Your task to perform on an android device: check google app version Image 0: 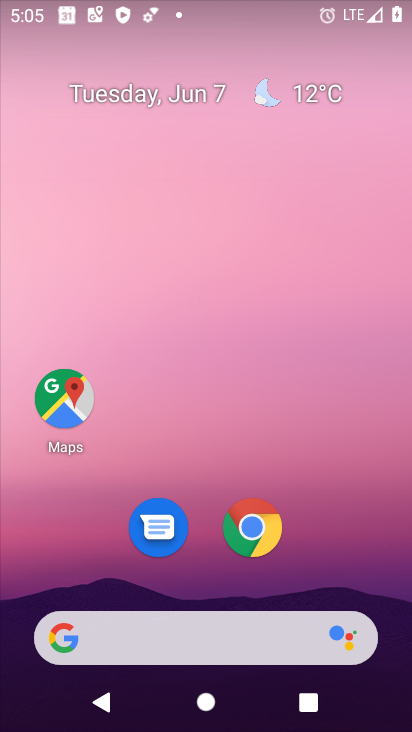
Step 0: drag from (322, 575) to (246, 28)
Your task to perform on an android device: check google app version Image 1: 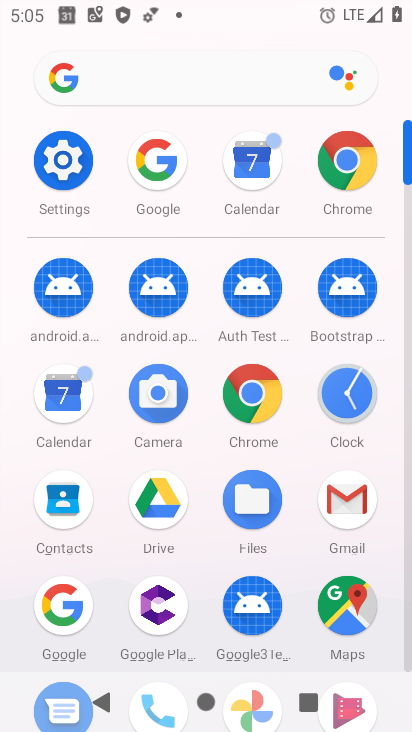
Step 1: click (153, 155)
Your task to perform on an android device: check google app version Image 2: 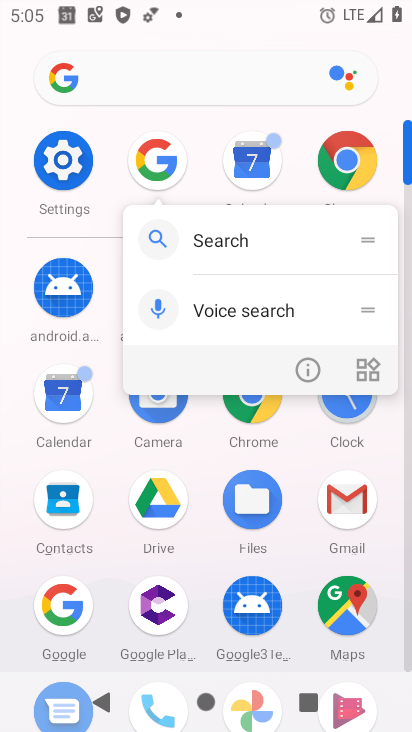
Step 2: click (307, 372)
Your task to perform on an android device: check google app version Image 3: 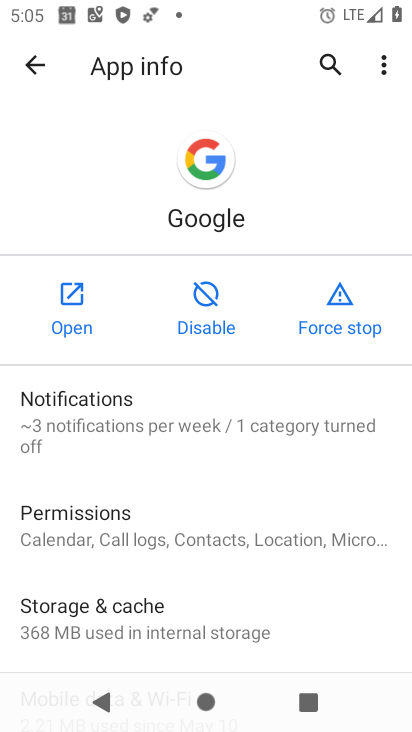
Step 3: drag from (146, 474) to (181, 232)
Your task to perform on an android device: check google app version Image 4: 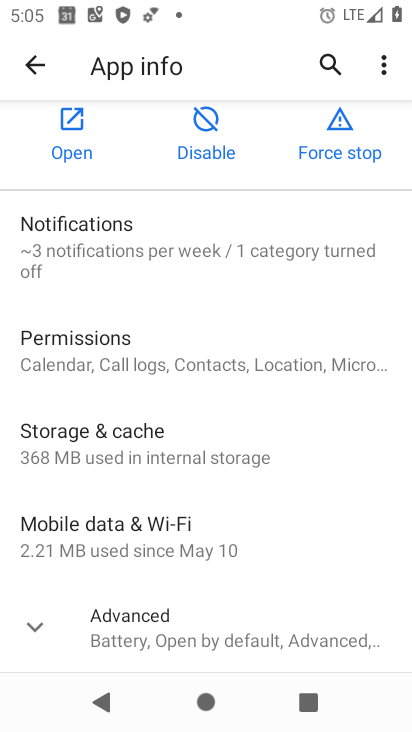
Step 4: click (160, 633)
Your task to perform on an android device: check google app version Image 5: 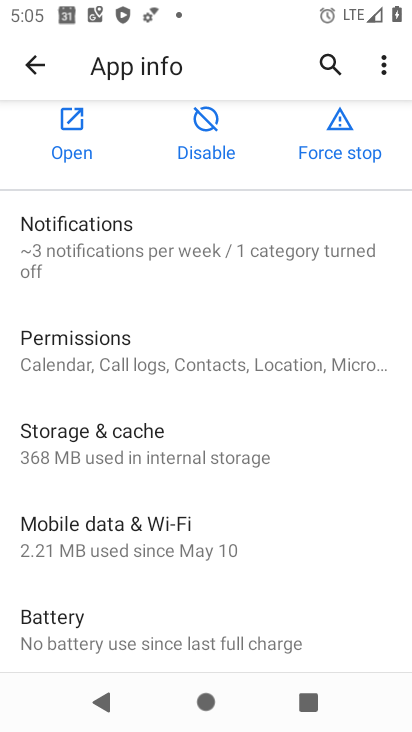
Step 5: task complete